Your task to perform on an android device: turn off translation in the chrome app Image 0: 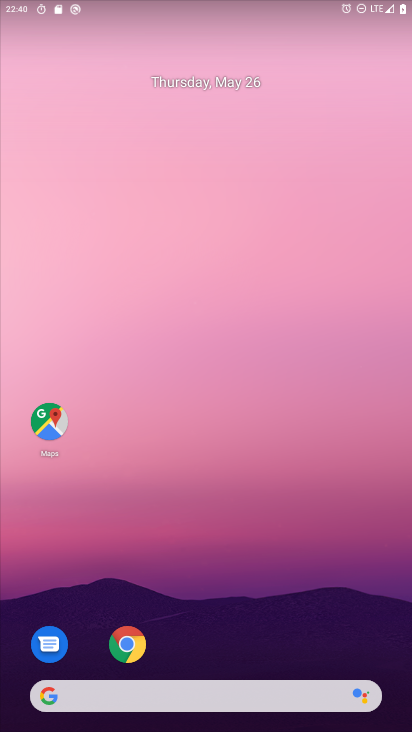
Step 0: drag from (203, 656) to (275, 166)
Your task to perform on an android device: turn off translation in the chrome app Image 1: 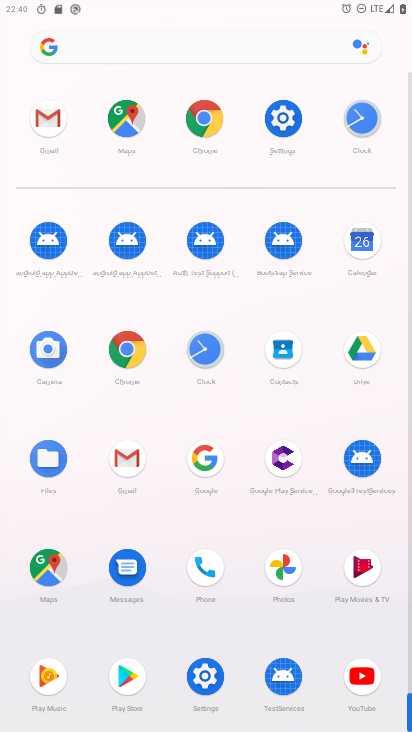
Step 1: click (126, 352)
Your task to perform on an android device: turn off translation in the chrome app Image 2: 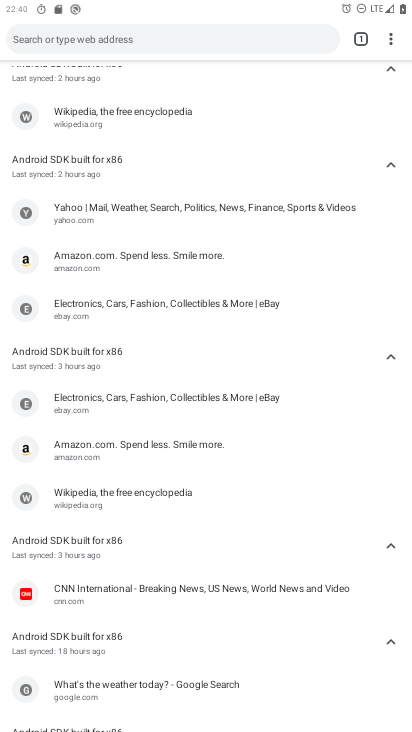
Step 2: drag from (143, 167) to (324, 628)
Your task to perform on an android device: turn off translation in the chrome app Image 3: 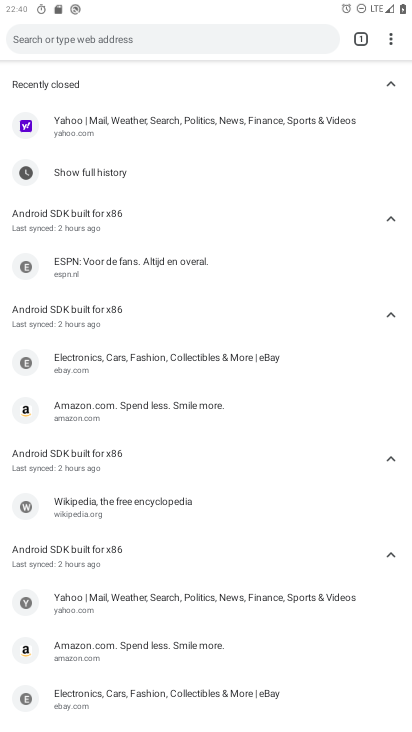
Step 3: drag from (390, 48) to (255, 319)
Your task to perform on an android device: turn off translation in the chrome app Image 4: 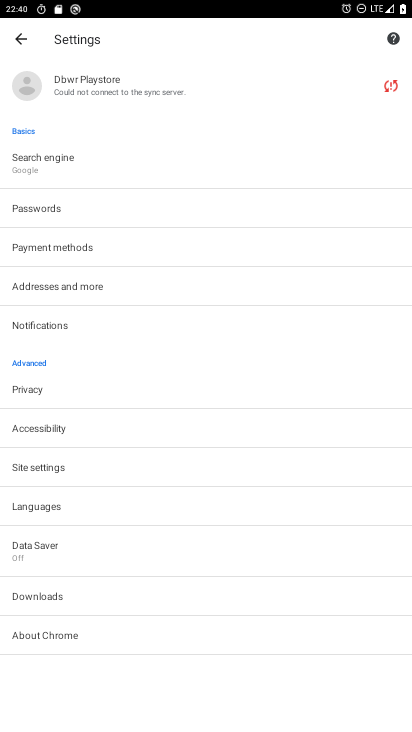
Step 4: click (53, 507)
Your task to perform on an android device: turn off translation in the chrome app Image 5: 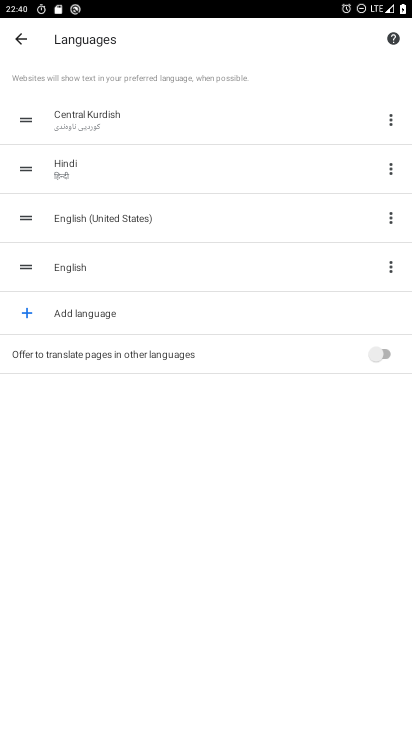
Step 5: task complete